Your task to perform on an android device: turn on wifi Image 0: 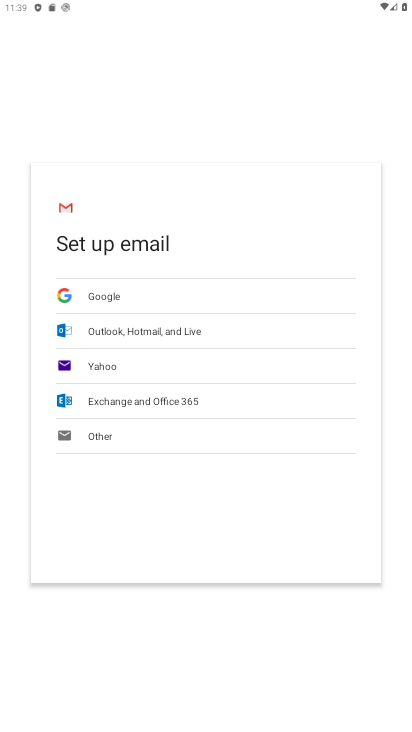
Step 0: press home button
Your task to perform on an android device: turn on wifi Image 1: 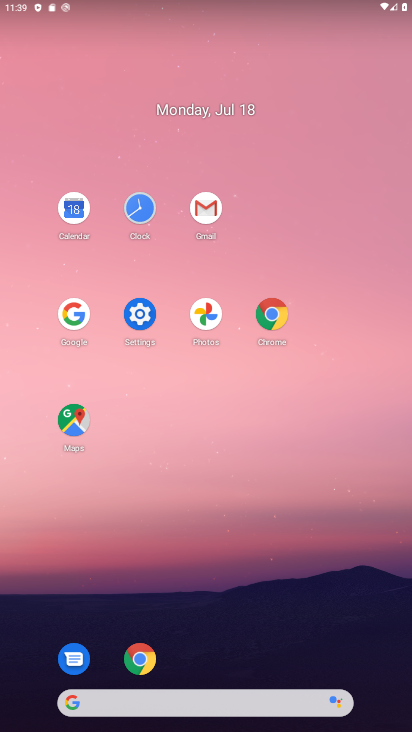
Step 1: click (154, 317)
Your task to perform on an android device: turn on wifi Image 2: 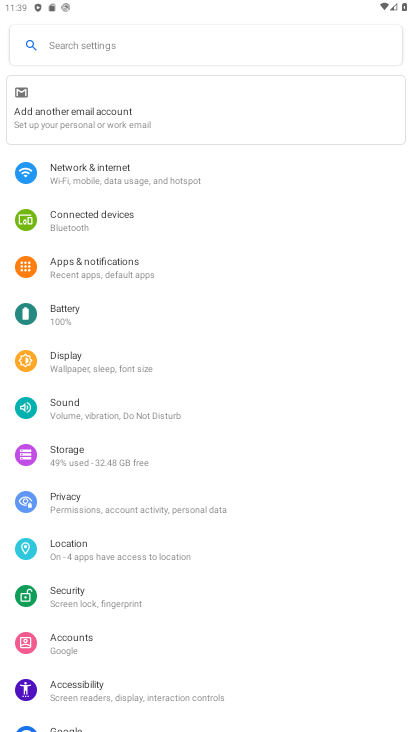
Step 2: click (149, 171)
Your task to perform on an android device: turn on wifi Image 3: 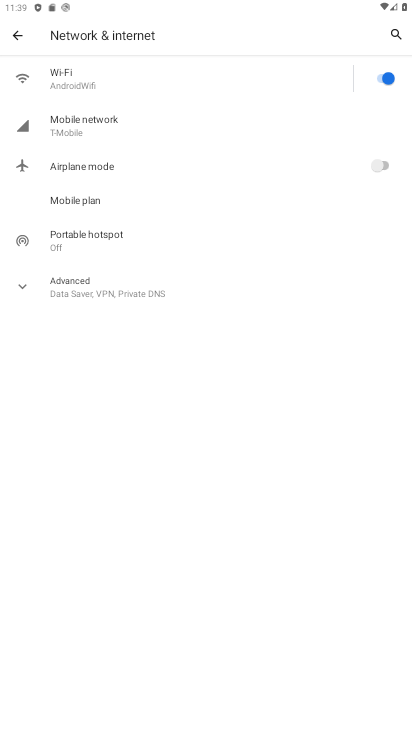
Step 3: task complete